Your task to perform on an android device: install app "Lyft - Rideshare, Bikes, Scooters & Transit" Image 0: 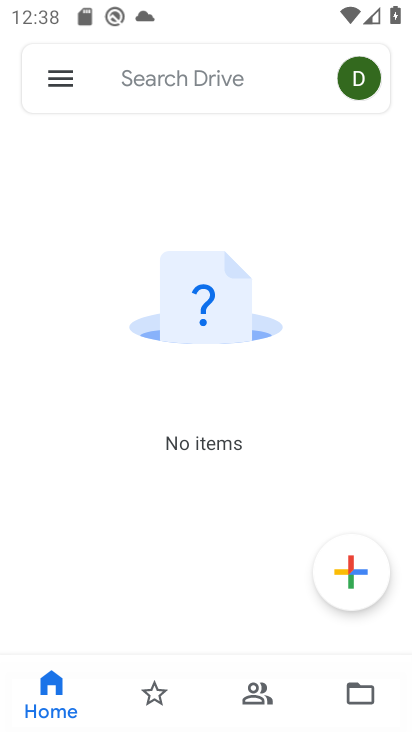
Step 0: press home button
Your task to perform on an android device: install app "Lyft - Rideshare, Bikes, Scooters & Transit" Image 1: 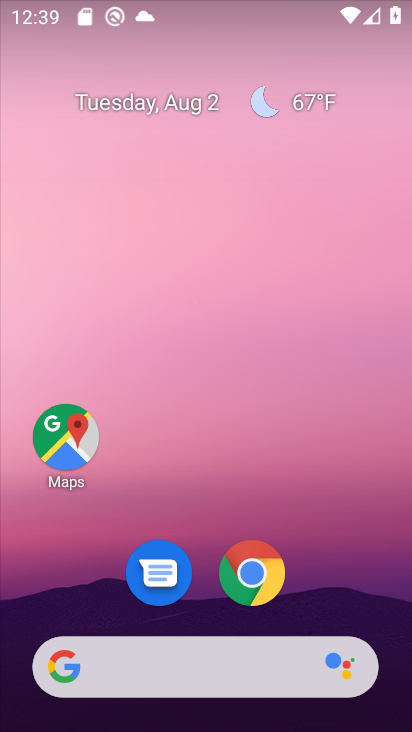
Step 1: drag from (237, 650) to (72, 32)
Your task to perform on an android device: install app "Lyft - Rideshare, Bikes, Scooters & Transit" Image 2: 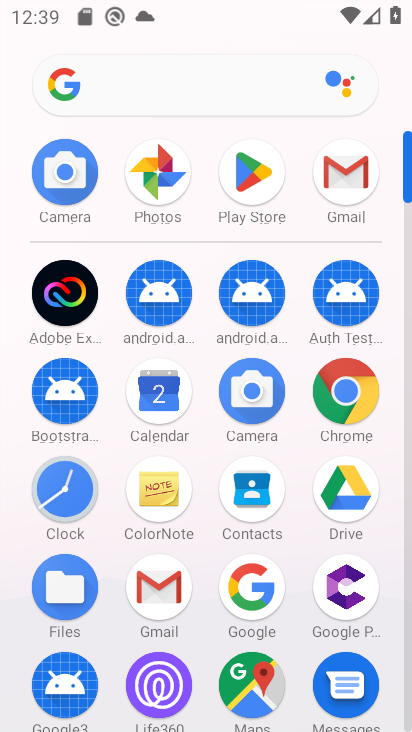
Step 2: click (278, 167)
Your task to perform on an android device: install app "Lyft - Rideshare, Bikes, Scooters & Transit" Image 3: 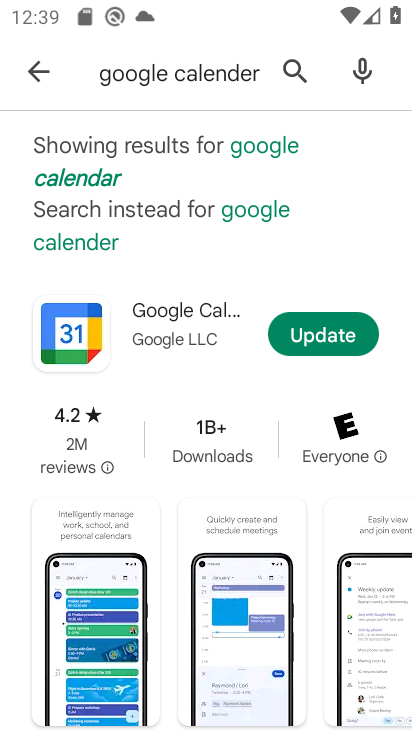
Step 3: click (290, 74)
Your task to perform on an android device: install app "Lyft - Rideshare, Bikes, Scooters & Transit" Image 4: 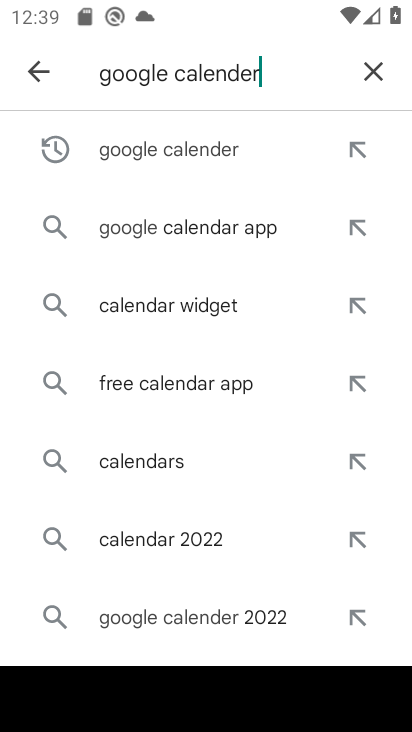
Step 4: click (373, 68)
Your task to perform on an android device: install app "Lyft - Rideshare, Bikes, Scooters & Transit" Image 5: 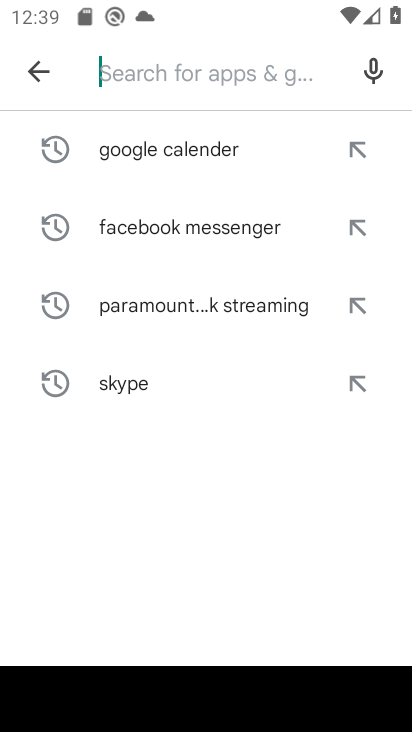
Step 5: type "lyft"
Your task to perform on an android device: install app "Lyft - Rideshare, Bikes, Scooters & Transit" Image 6: 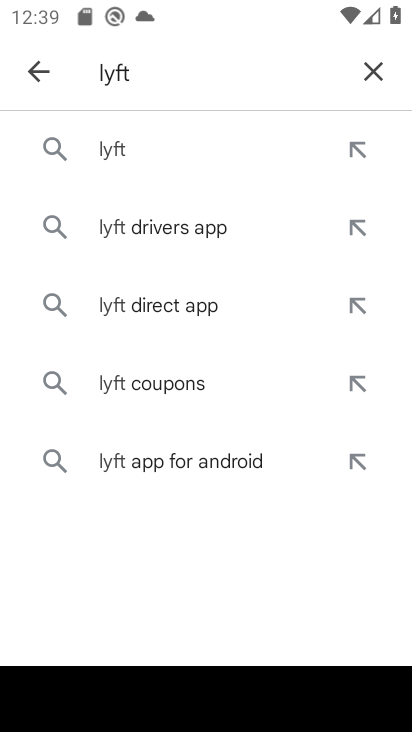
Step 6: click (132, 153)
Your task to perform on an android device: install app "Lyft - Rideshare, Bikes, Scooters & Transit" Image 7: 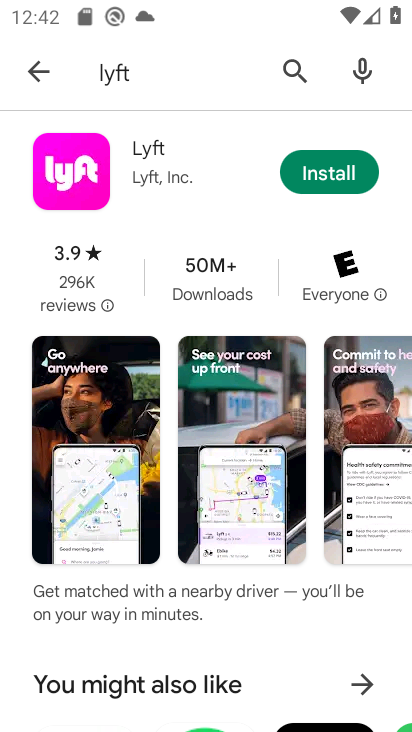
Step 7: click (356, 170)
Your task to perform on an android device: install app "Lyft - Rideshare, Bikes, Scooters & Transit" Image 8: 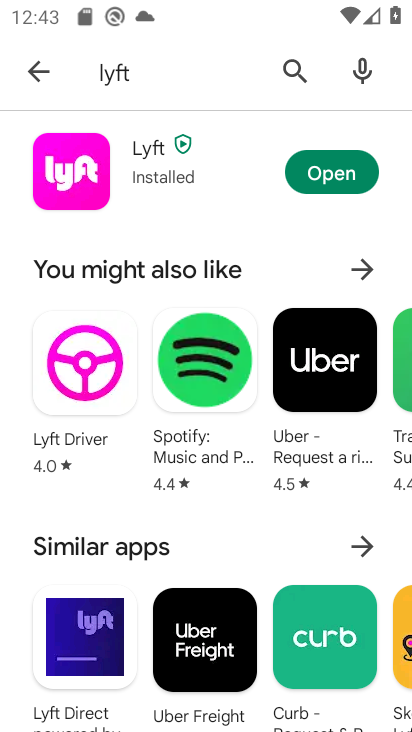
Step 8: task complete